Your task to perform on an android device: turn on sleep mode Image 0: 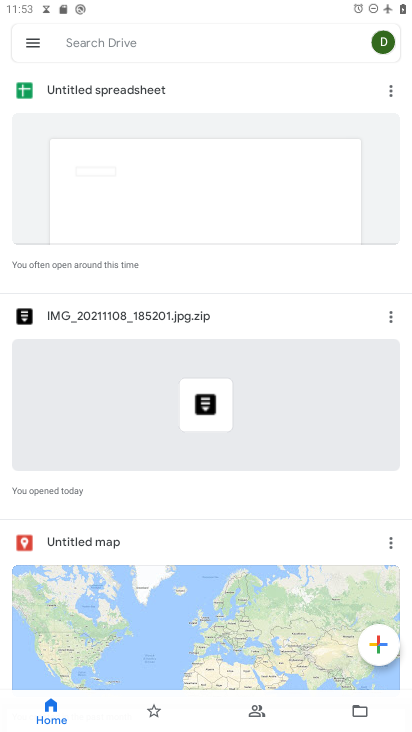
Step 0: press back button
Your task to perform on an android device: turn on sleep mode Image 1: 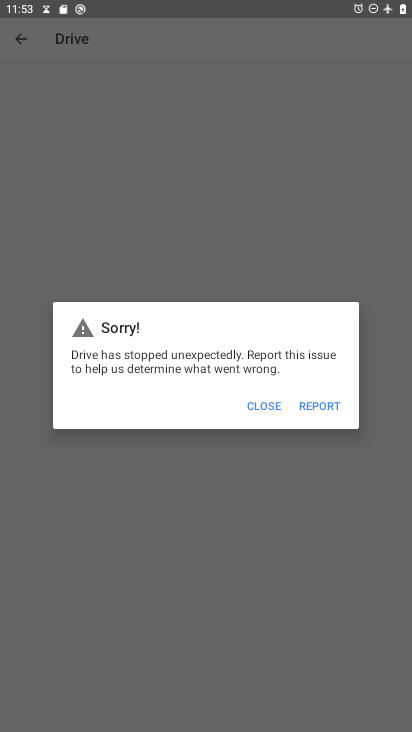
Step 1: press home button
Your task to perform on an android device: turn on sleep mode Image 2: 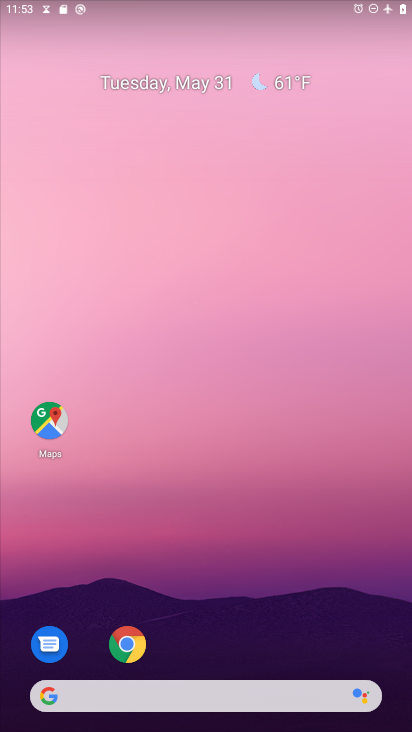
Step 2: drag from (216, 566) to (285, 110)
Your task to perform on an android device: turn on sleep mode Image 3: 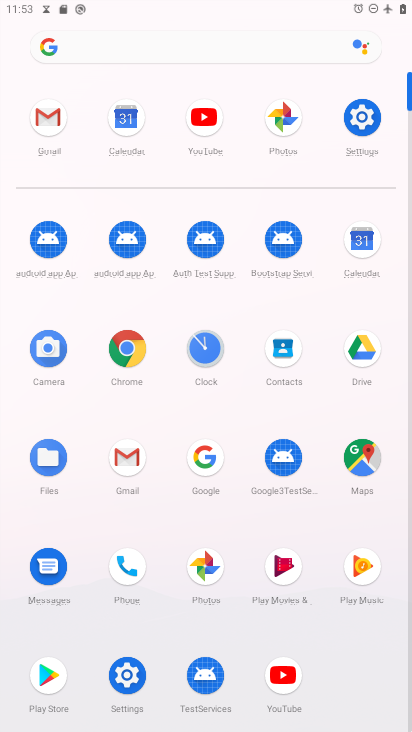
Step 3: click (360, 125)
Your task to perform on an android device: turn on sleep mode Image 4: 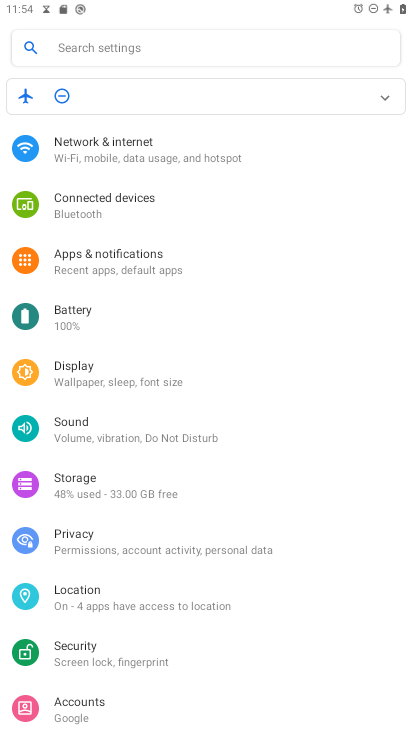
Step 4: click (166, 49)
Your task to perform on an android device: turn on sleep mode Image 5: 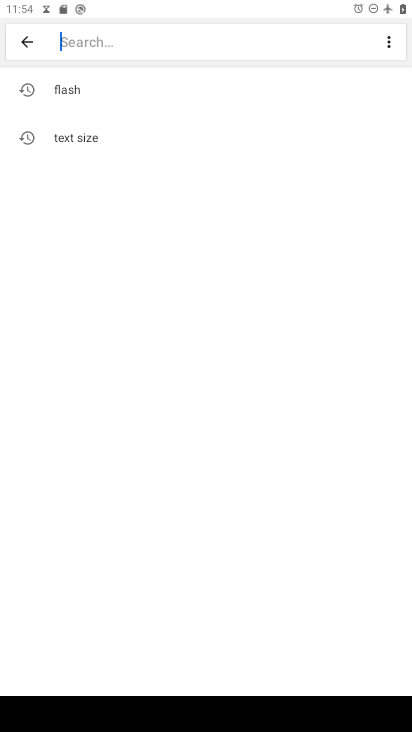
Step 5: type "sleep mode"
Your task to perform on an android device: turn on sleep mode Image 6: 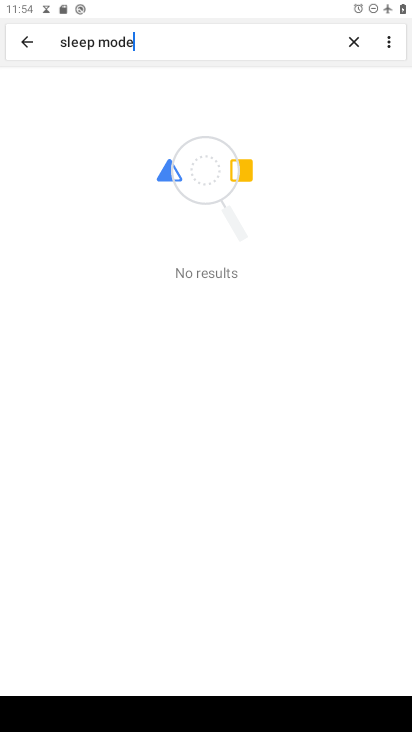
Step 6: task complete